Your task to perform on an android device: open app "Expedia: Hotels, Flights & Car" (install if not already installed) and go to login screen Image 0: 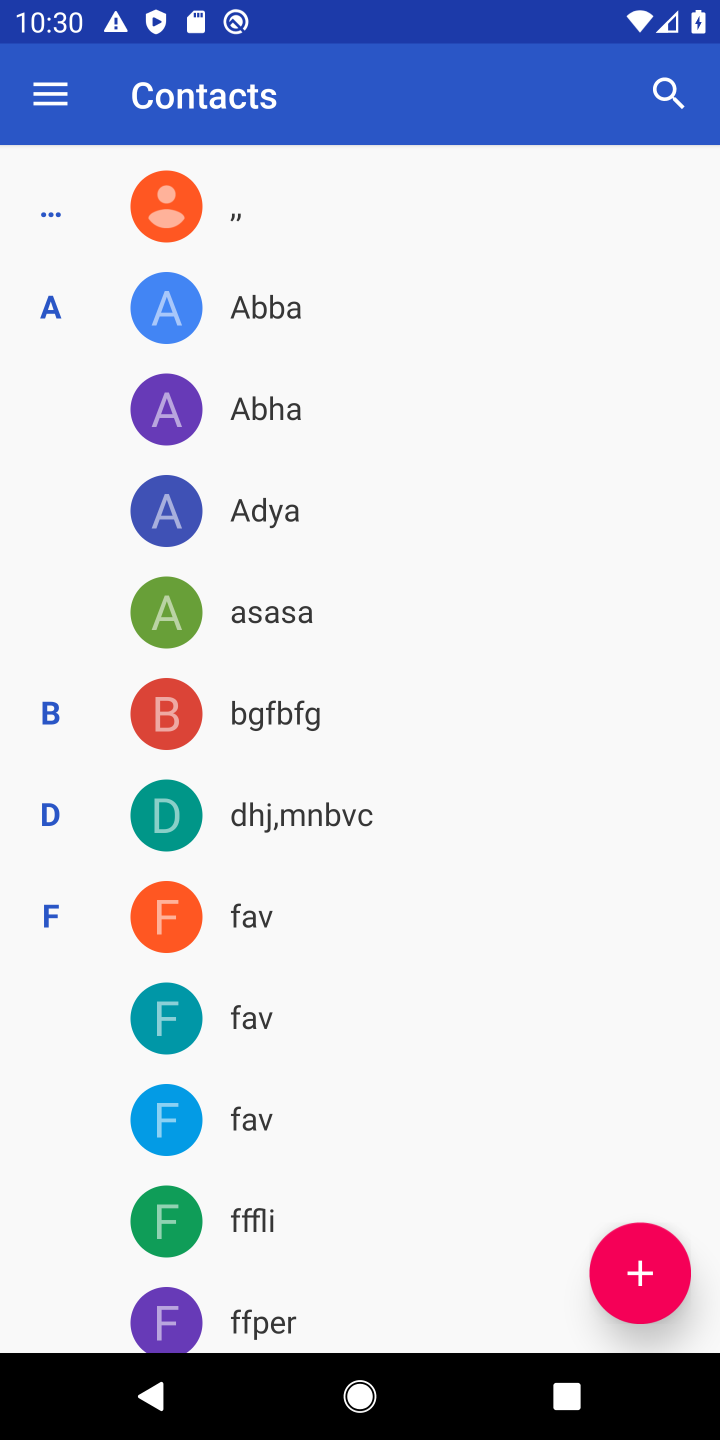
Step 0: press home button
Your task to perform on an android device: open app "Expedia: Hotels, Flights & Car" (install if not already installed) and go to login screen Image 1: 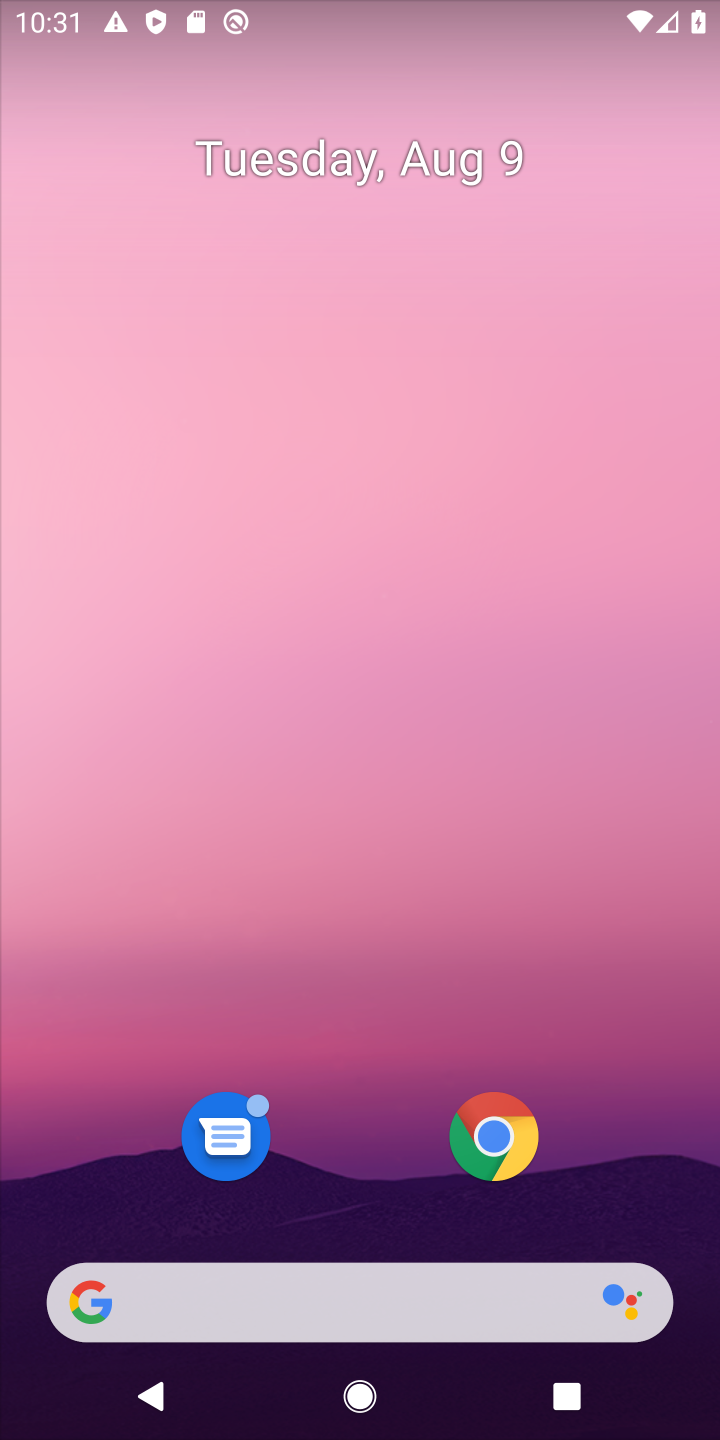
Step 1: drag from (309, 627) to (178, 70)
Your task to perform on an android device: open app "Expedia: Hotels, Flights & Car" (install if not already installed) and go to login screen Image 2: 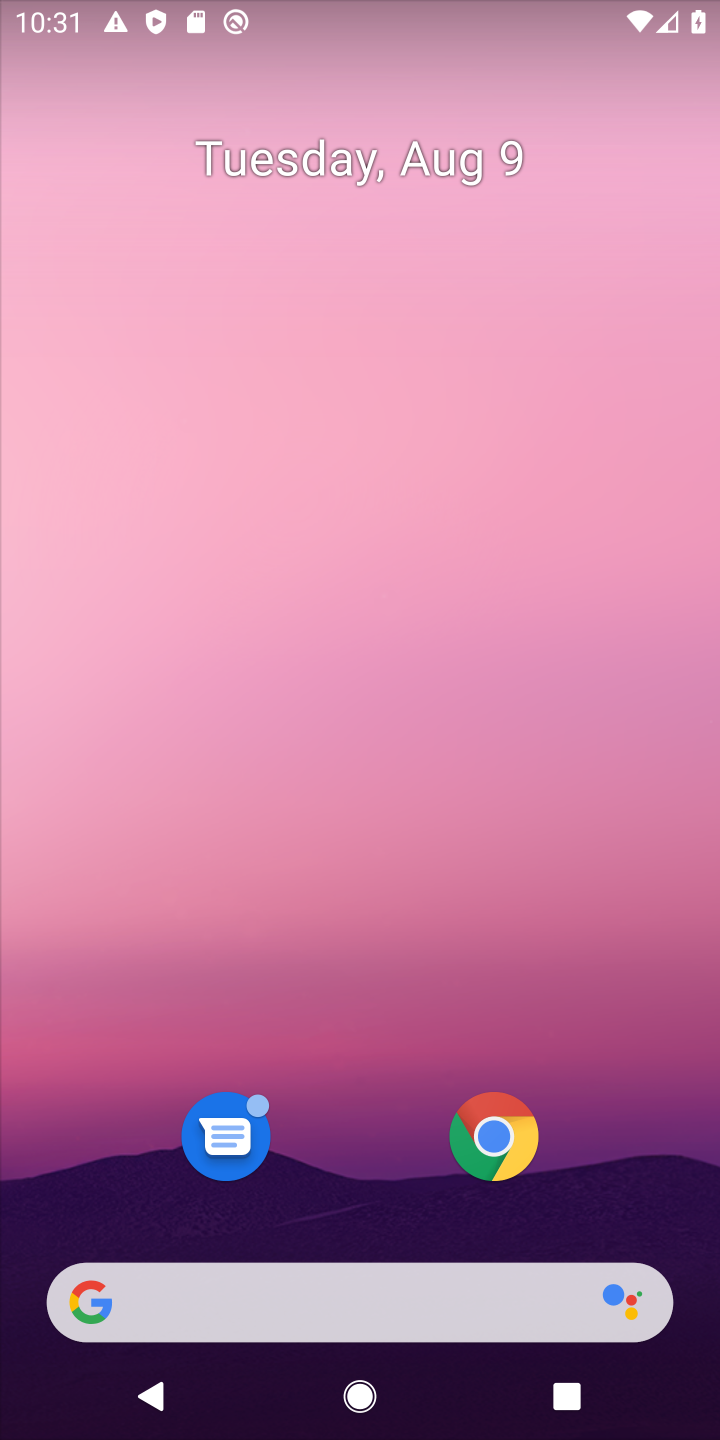
Step 2: drag from (329, 1219) to (430, 115)
Your task to perform on an android device: open app "Expedia: Hotels, Flights & Car" (install if not already installed) and go to login screen Image 3: 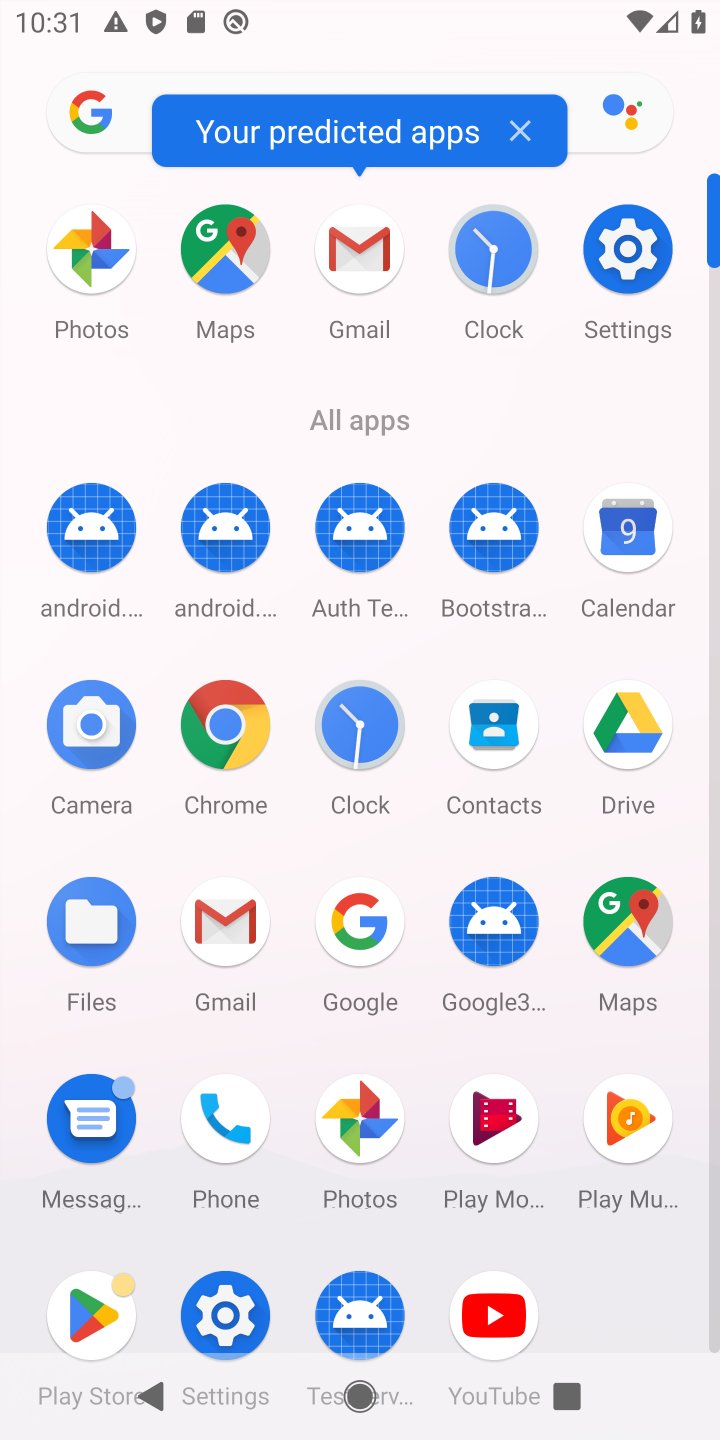
Step 3: click (89, 1331)
Your task to perform on an android device: open app "Expedia: Hotels, Flights & Car" (install if not already installed) and go to login screen Image 4: 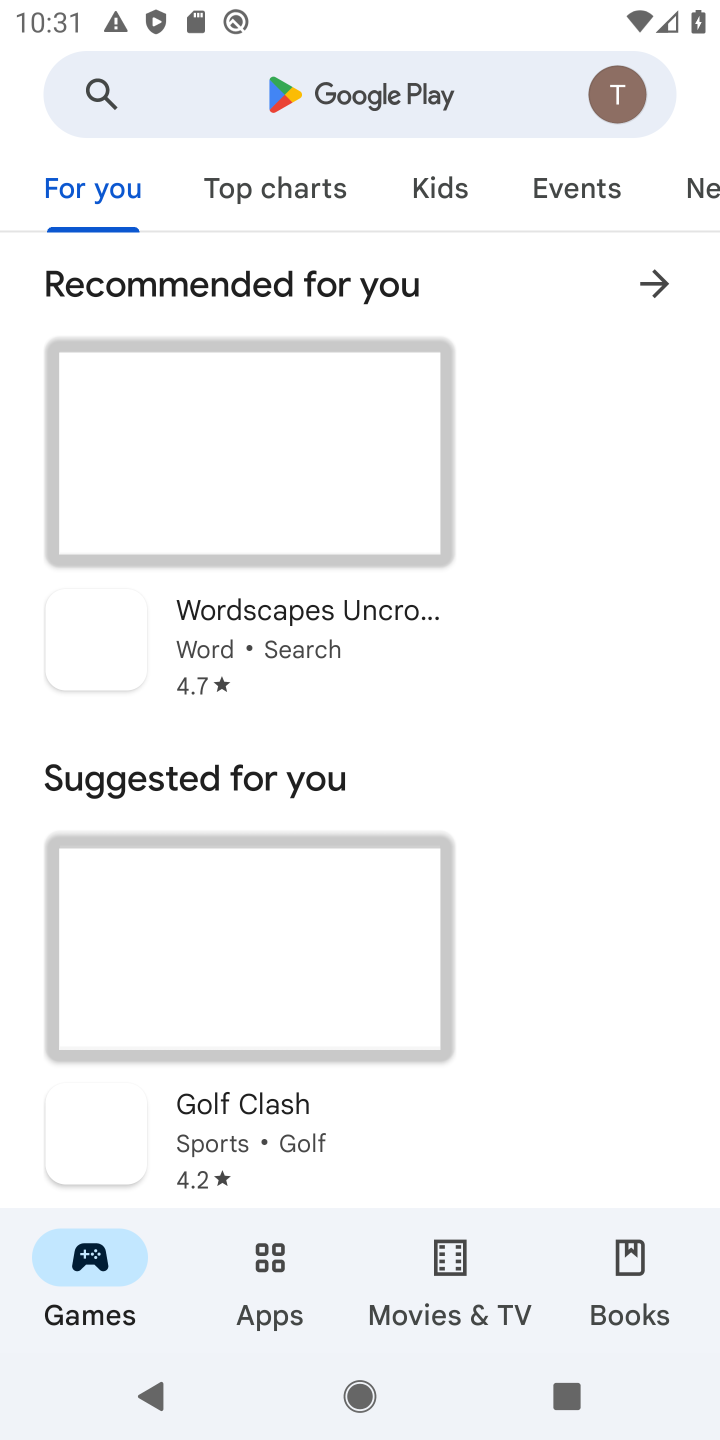
Step 4: click (345, 104)
Your task to perform on an android device: open app "Expedia: Hotels, Flights & Car" (install if not already installed) and go to login screen Image 5: 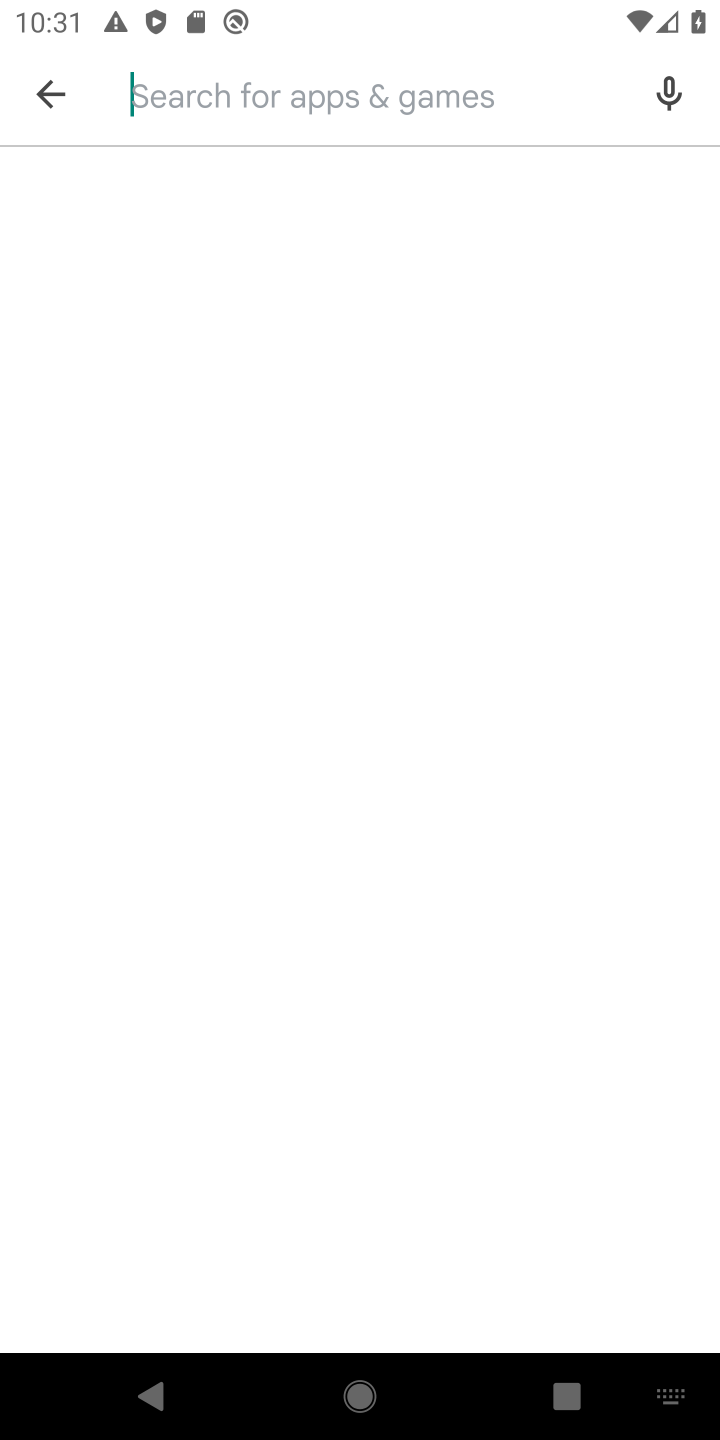
Step 5: type "expedia"
Your task to perform on an android device: open app "Expedia: Hotels, Flights & Car" (install if not already installed) and go to login screen Image 6: 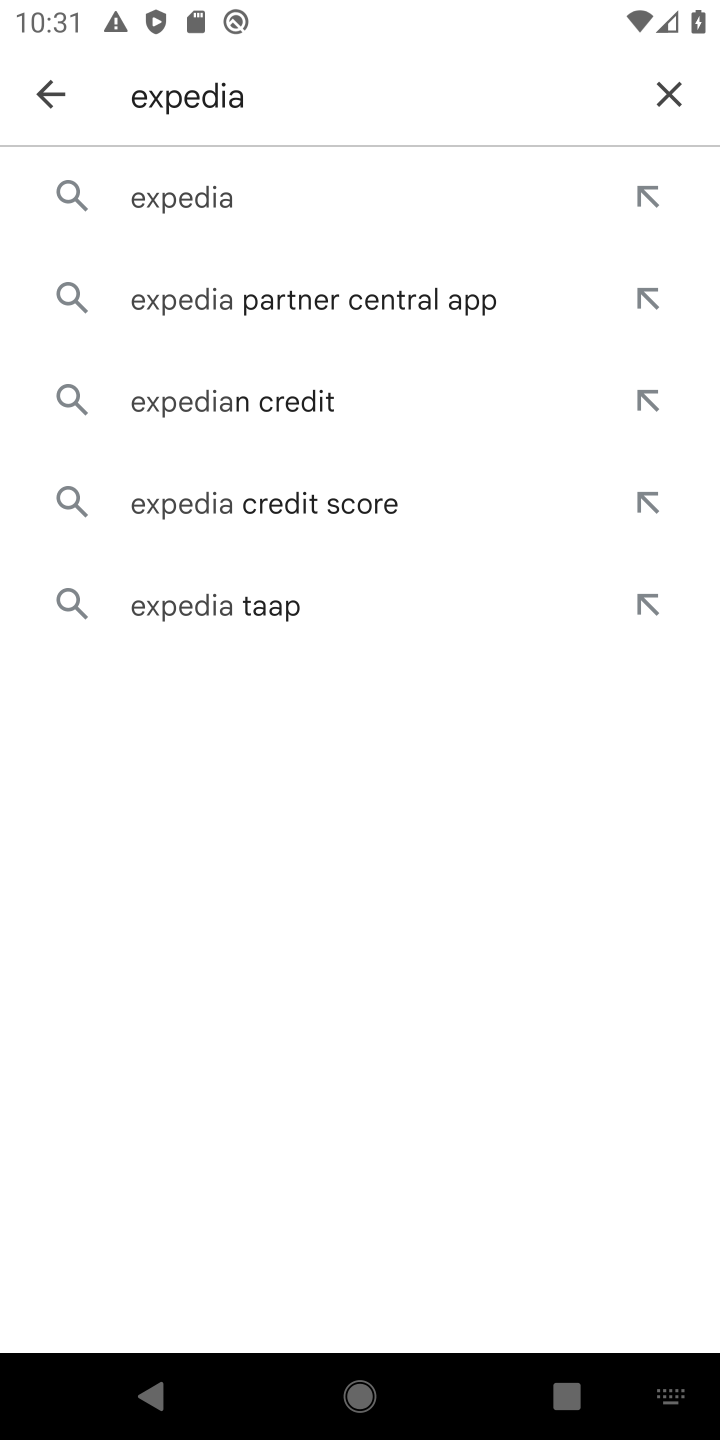
Step 6: click (241, 209)
Your task to perform on an android device: open app "Expedia: Hotels, Flights & Car" (install if not already installed) and go to login screen Image 7: 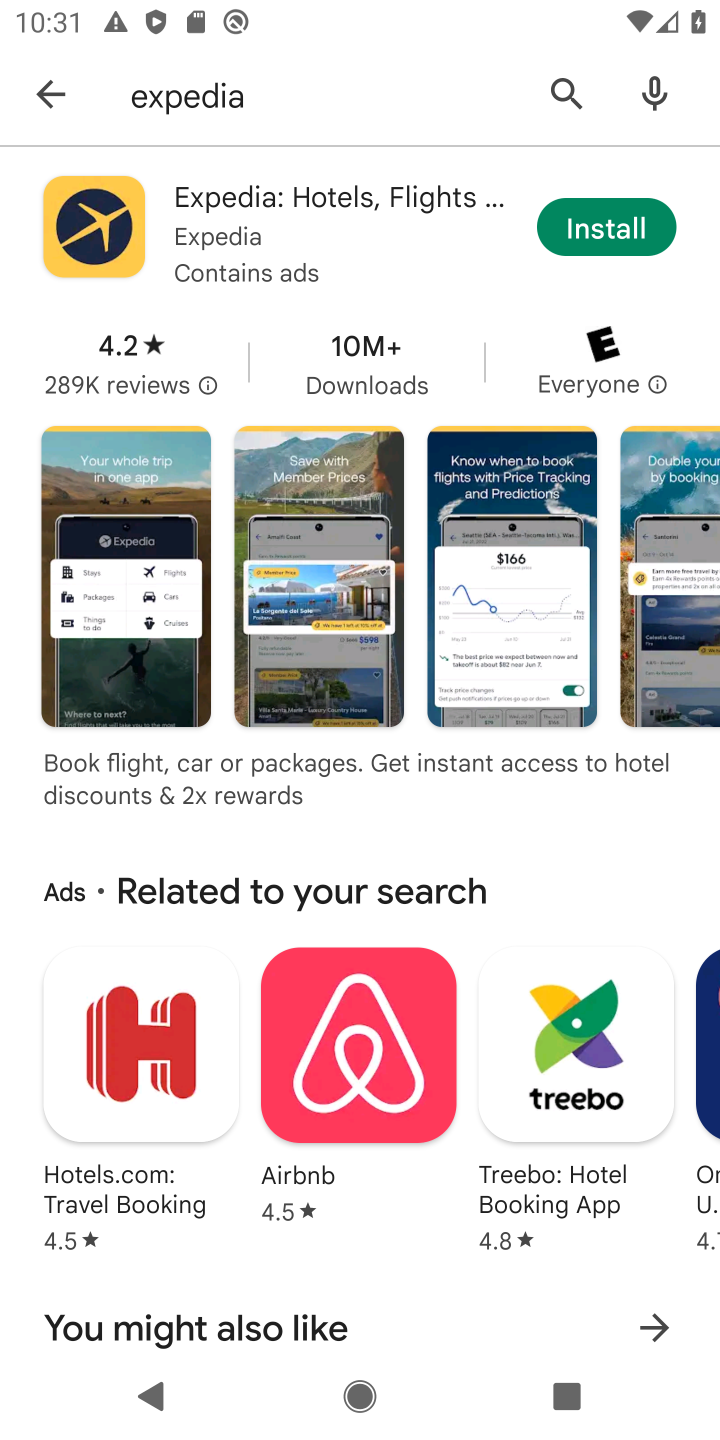
Step 7: click (603, 221)
Your task to perform on an android device: open app "Expedia: Hotels, Flights & Car" (install if not already installed) and go to login screen Image 8: 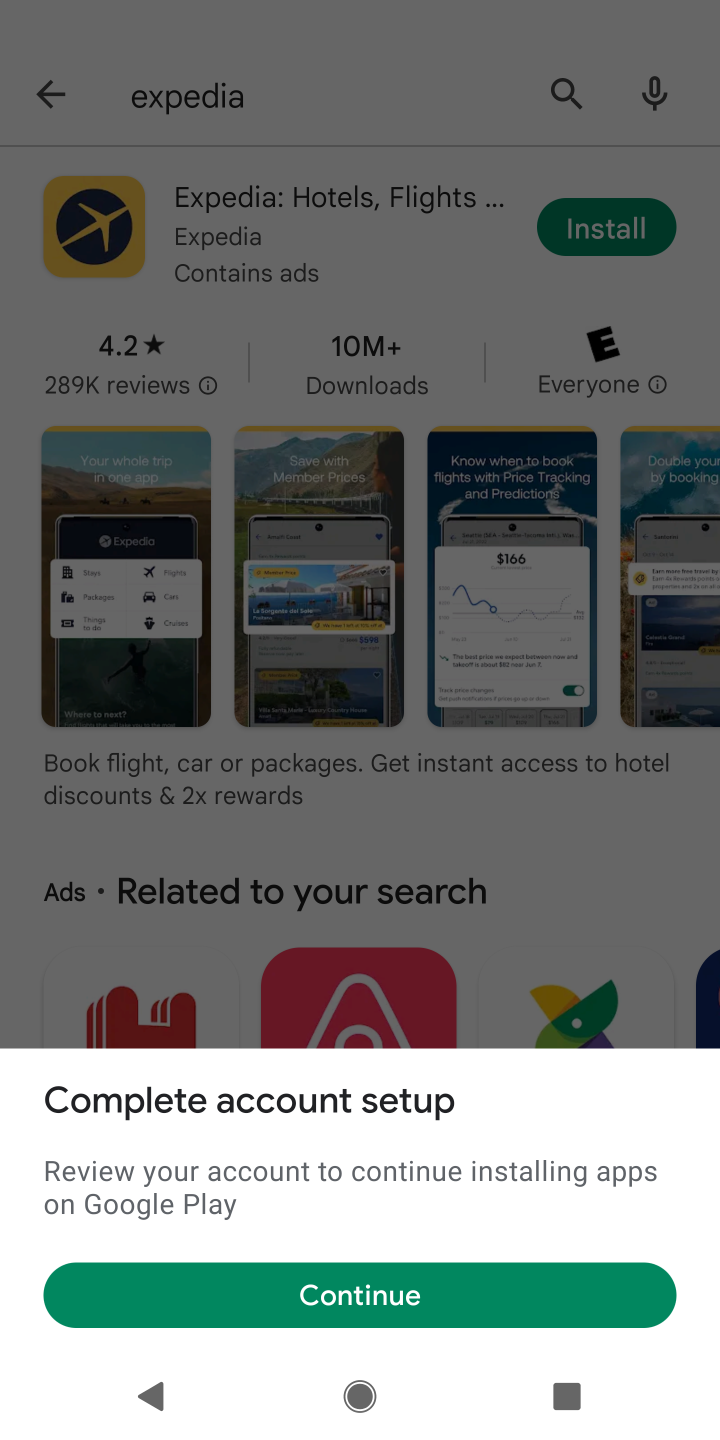
Step 8: click (197, 1287)
Your task to perform on an android device: open app "Expedia: Hotels, Flights & Car" (install if not already installed) and go to login screen Image 9: 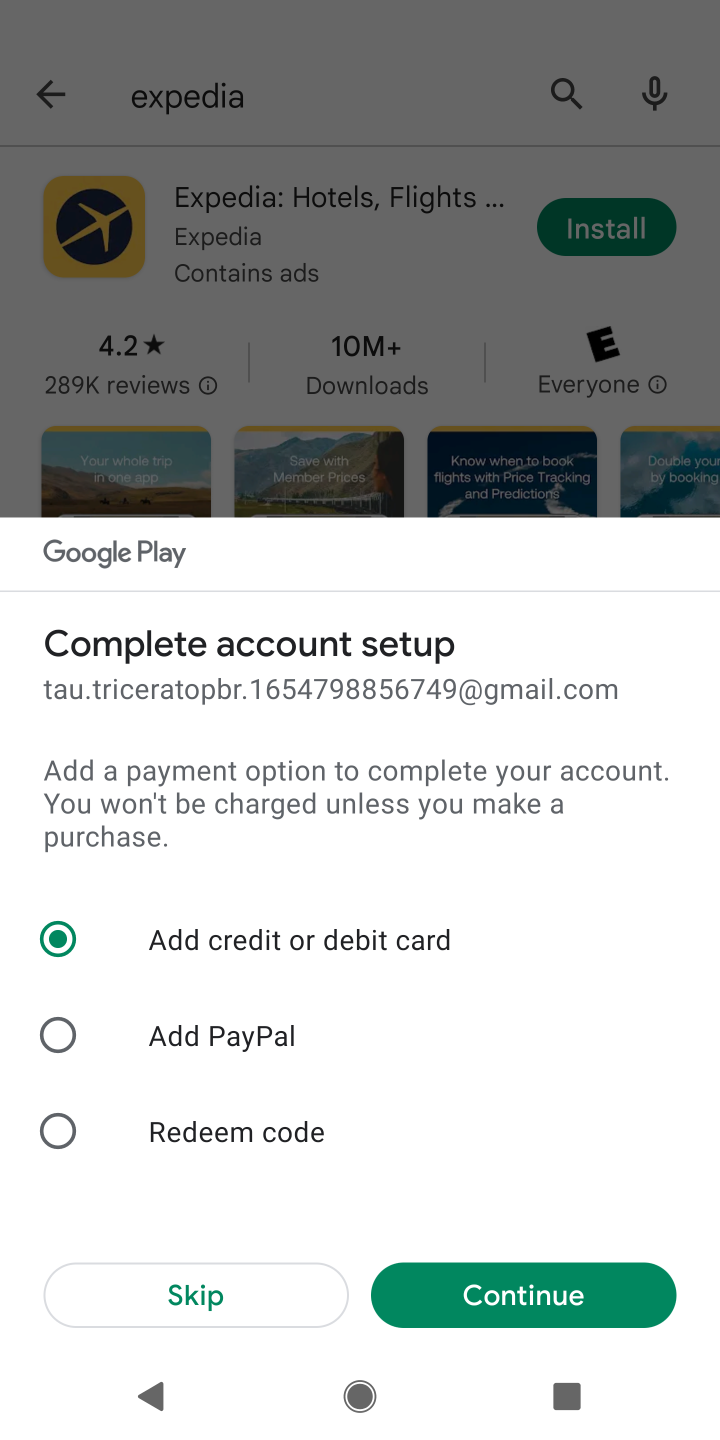
Step 9: click (256, 1301)
Your task to perform on an android device: open app "Expedia: Hotels, Flights & Car" (install if not already installed) and go to login screen Image 10: 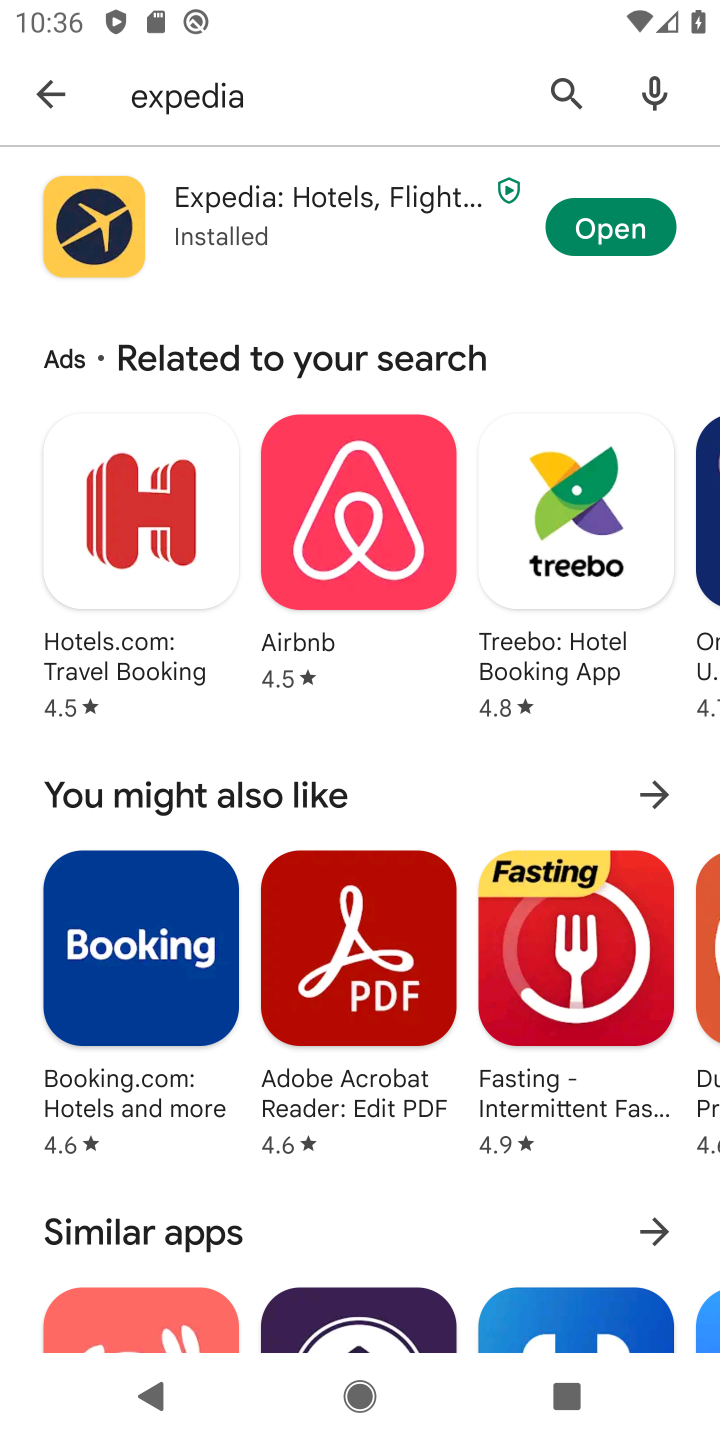
Step 10: click (618, 214)
Your task to perform on an android device: open app "Expedia: Hotels, Flights & Car" (install if not already installed) and go to login screen Image 11: 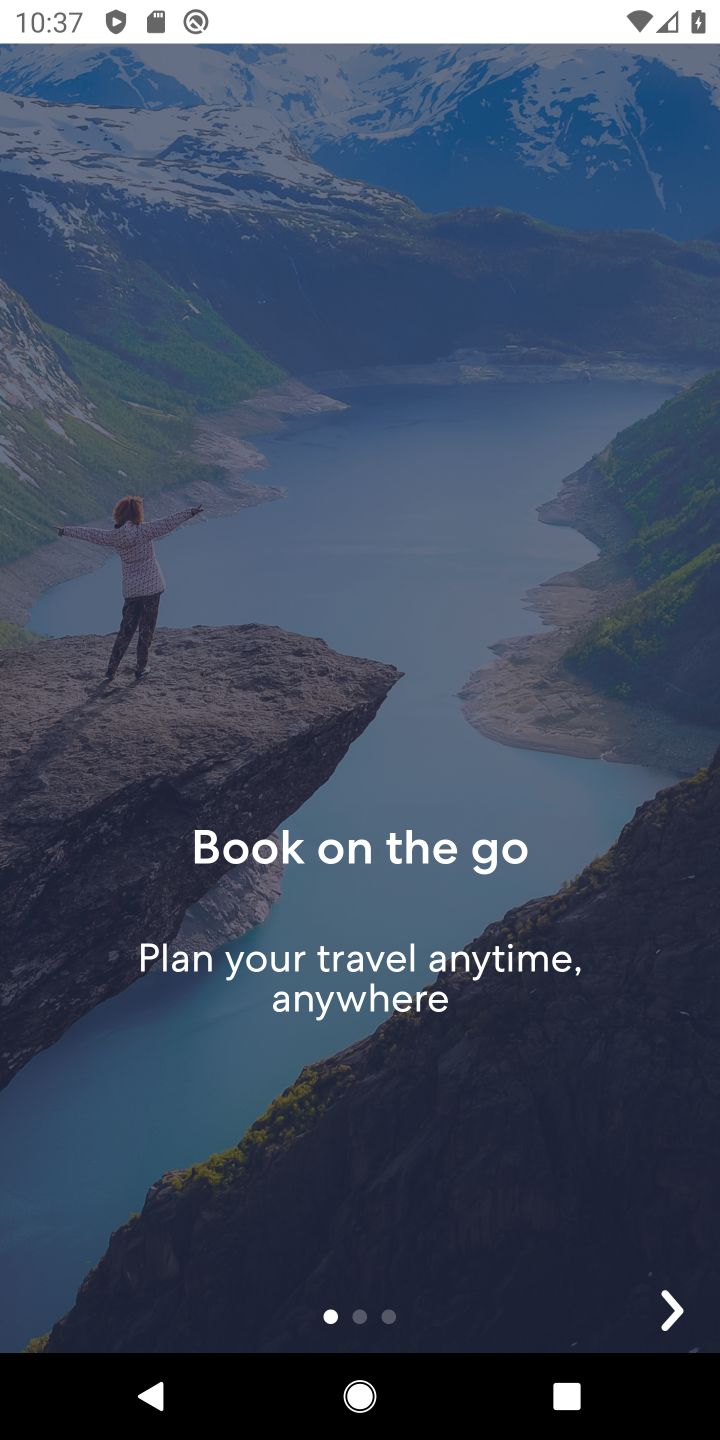
Step 11: click (659, 1298)
Your task to perform on an android device: open app "Expedia: Hotels, Flights & Car" (install if not already installed) and go to login screen Image 12: 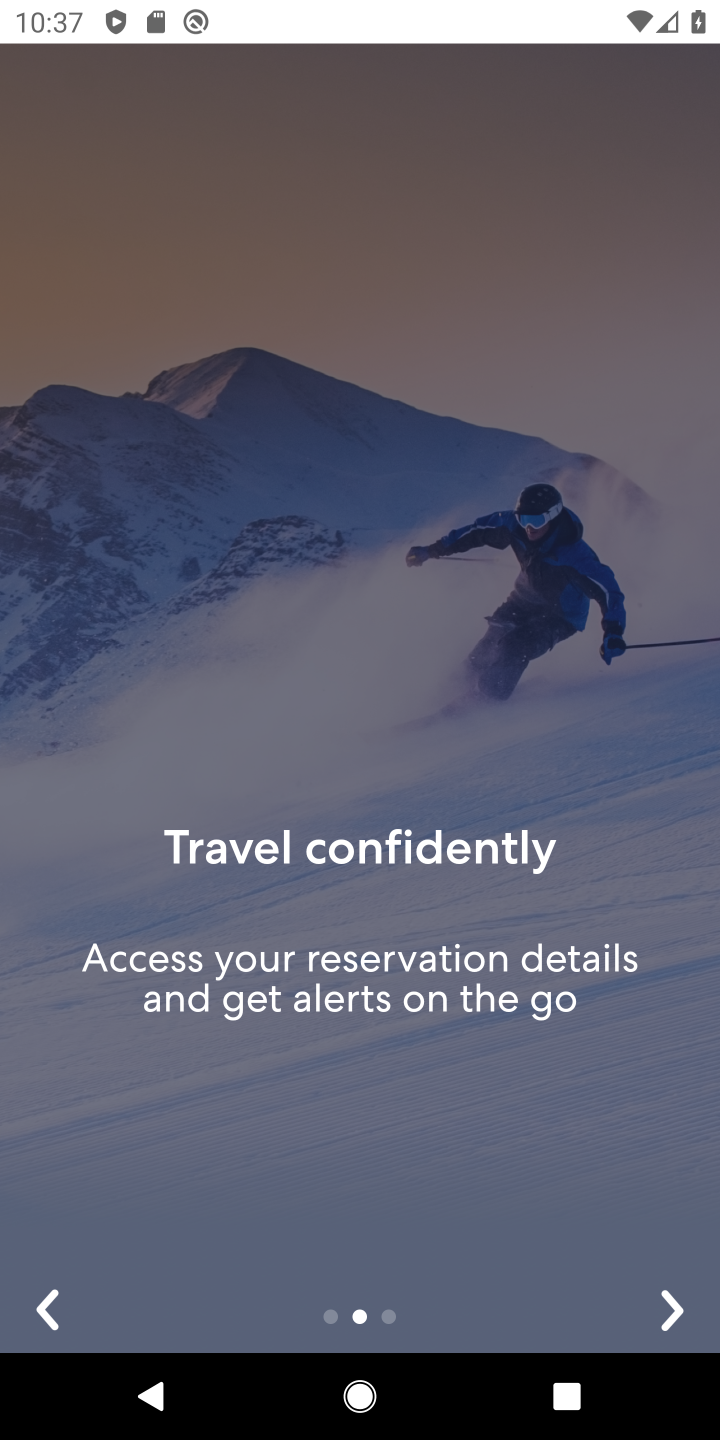
Step 12: click (679, 1293)
Your task to perform on an android device: open app "Expedia: Hotels, Flights & Car" (install if not already installed) and go to login screen Image 13: 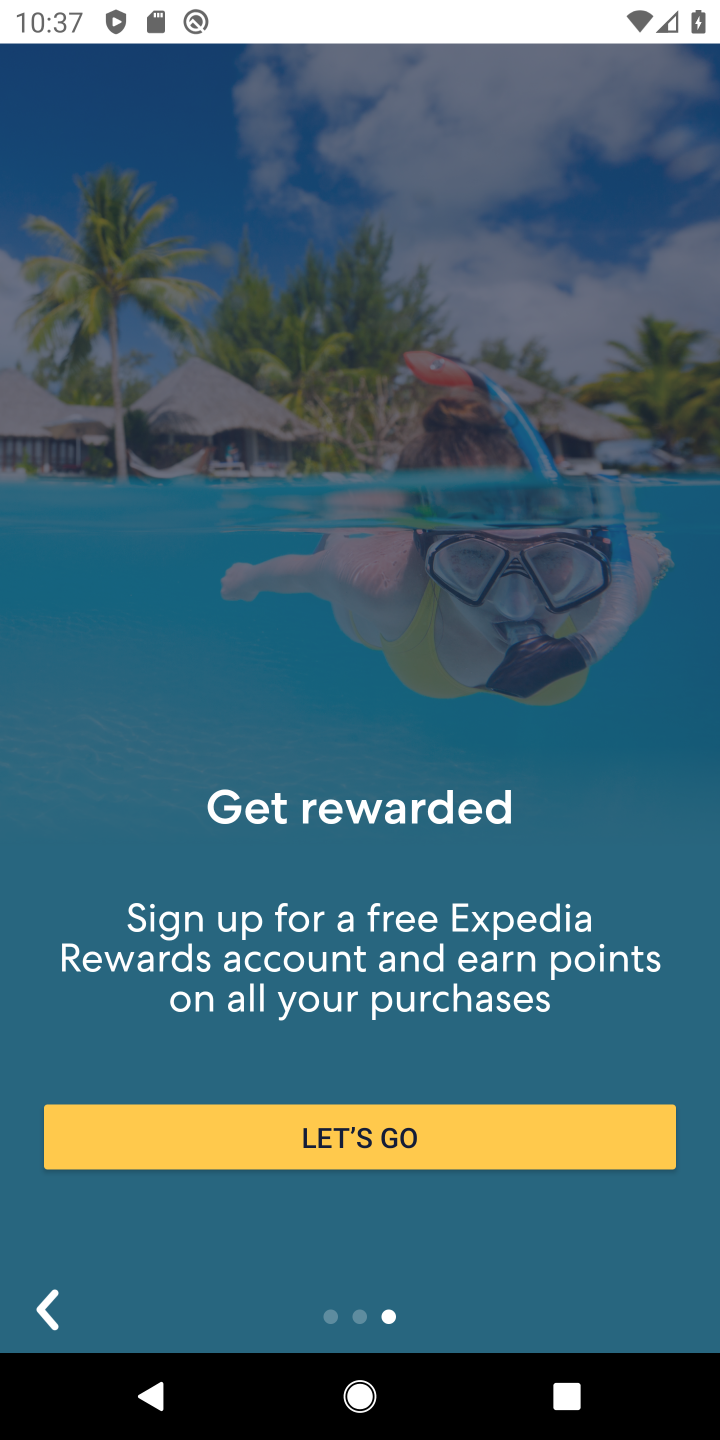
Step 13: click (506, 1154)
Your task to perform on an android device: open app "Expedia: Hotels, Flights & Car" (install if not already installed) and go to login screen Image 14: 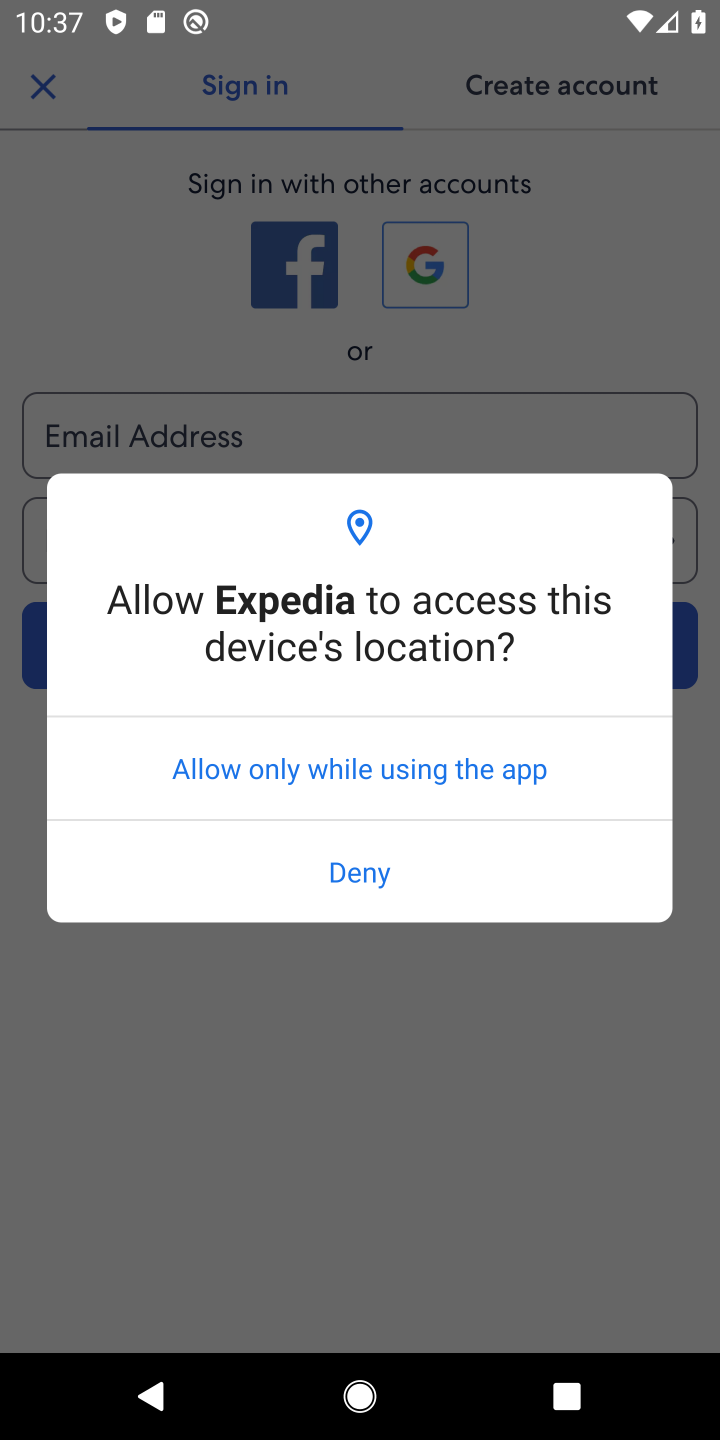
Step 14: click (447, 758)
Your task to perform on an android device: open app "Expedia: Hotels, Flights & Car" (install if not already installed) and go to login screen Image 15: 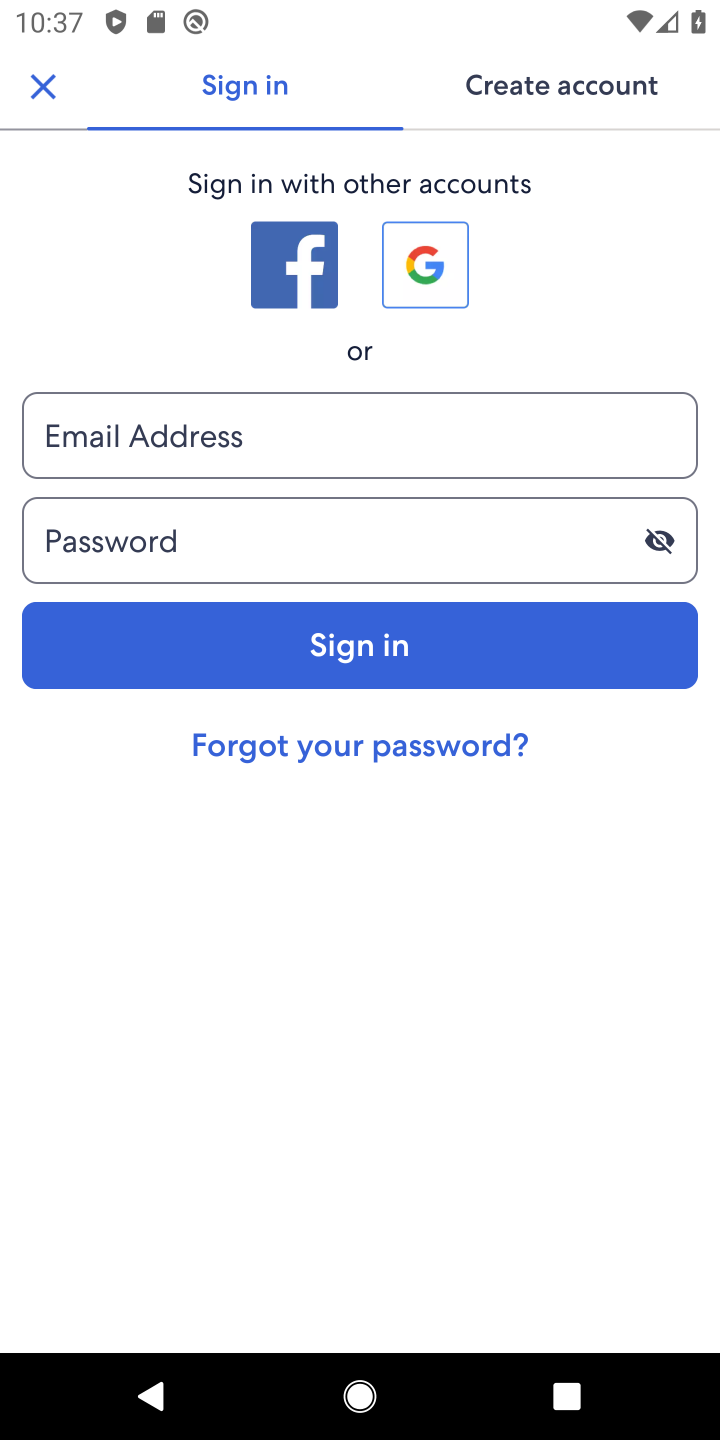
Step 15: task complete